Your task to perform on an android device: Search for a new blush on Sephora Image 0: 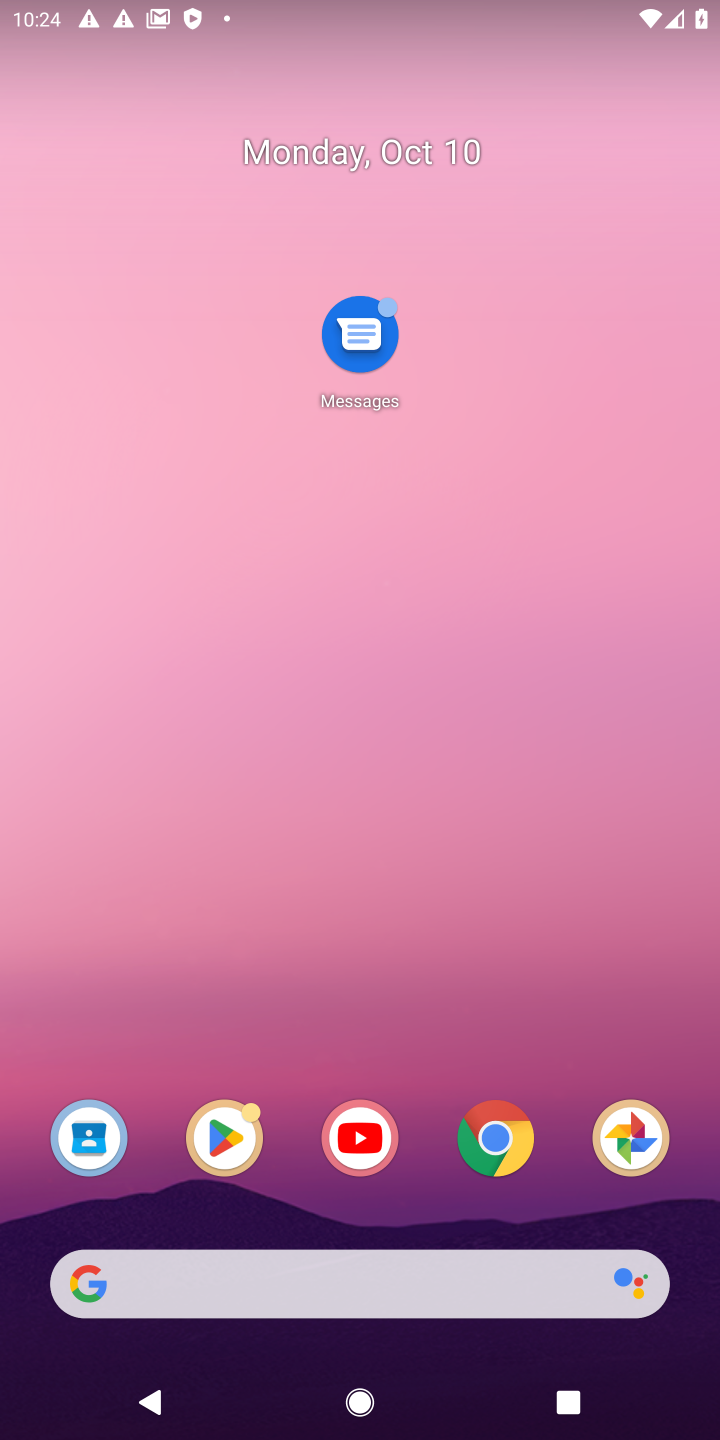
Step 0: click (507, 1161)
Your task to perform on an android device: Search for a new blush on Sephora Image 1: 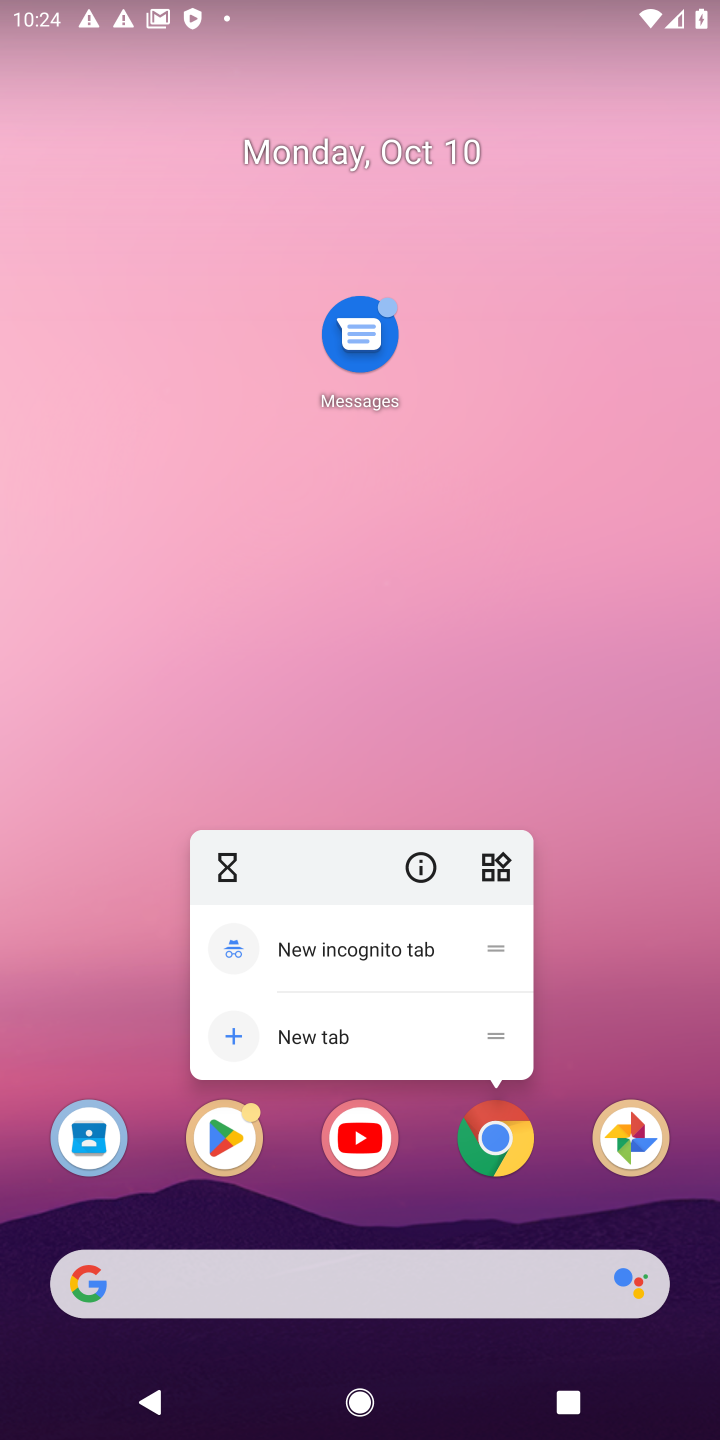
Step 1: click (503, 1136)
Your task to perform on an android device: Search for a new blush on Sephora Image 2: 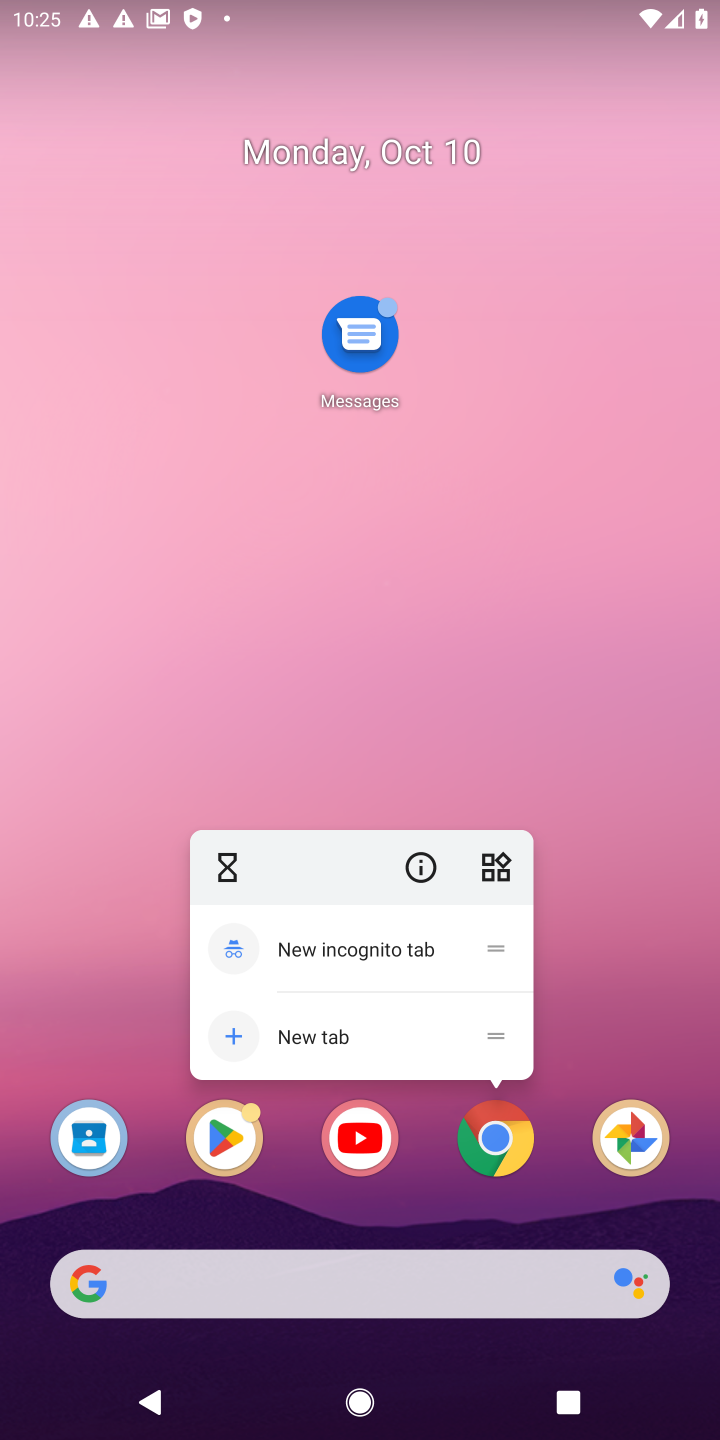
Step 2: click (501, 1153)
Your task to perform on an android device: Search for a new blush on Sephora Image 3: 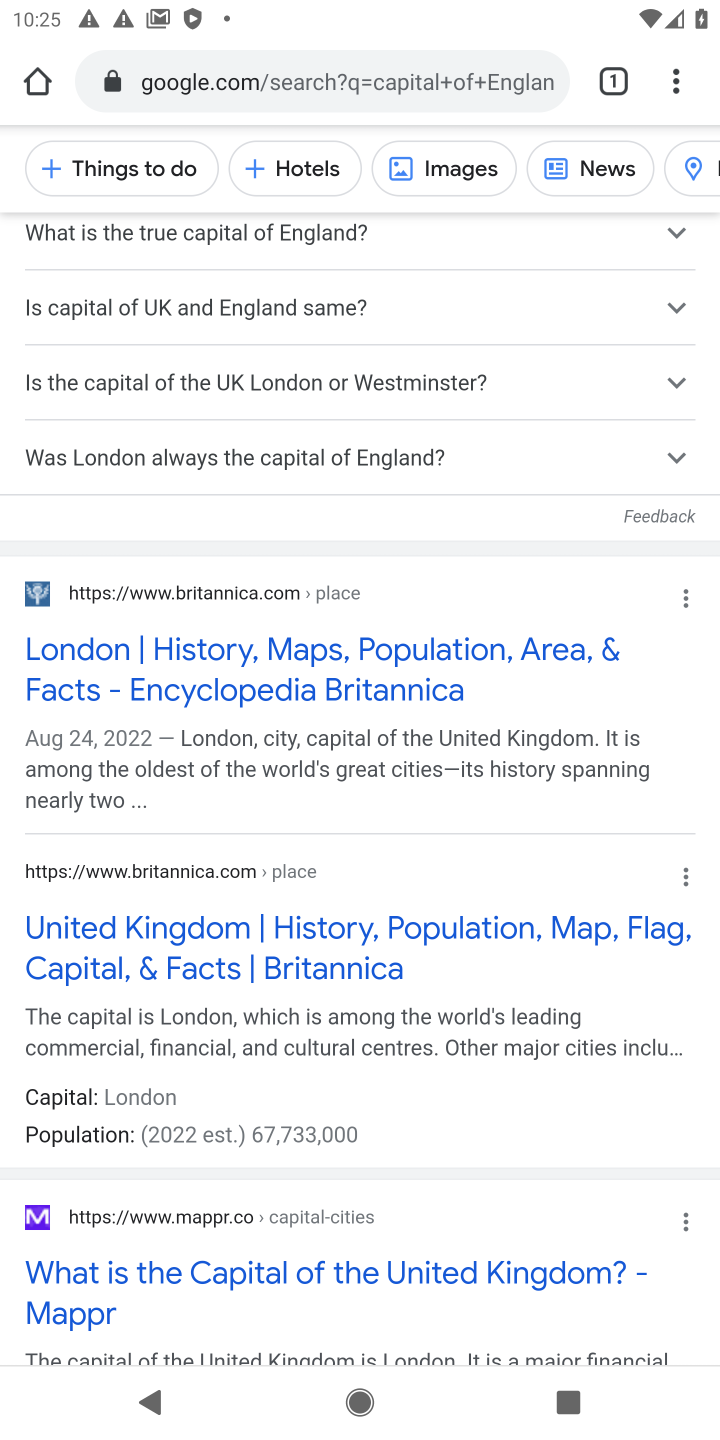
Step 3: click (398, 95)
Your task to perform on an android device: Search for a new blush on Sephora Image 4: 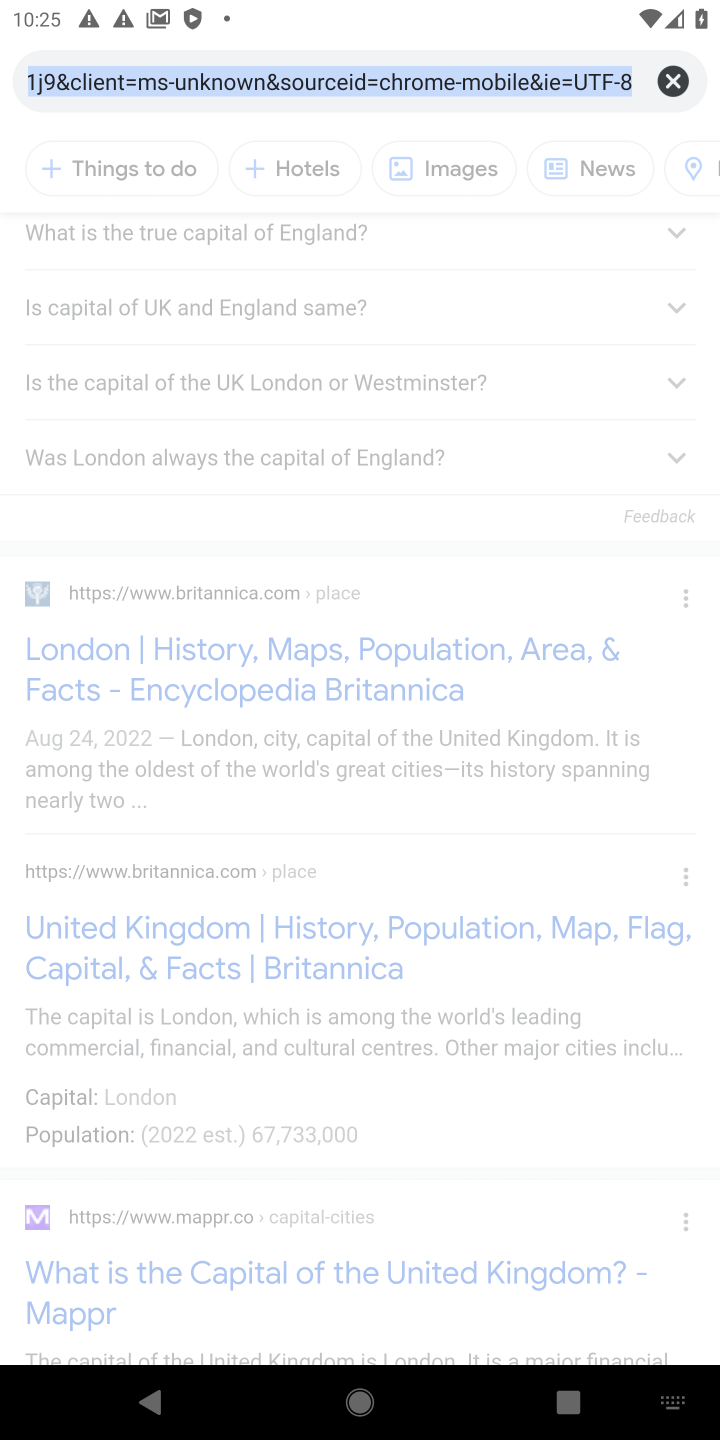
Step 4: type "sephora"
Your task to perform on an android device: Search for a new blush on Sephora Image 5: 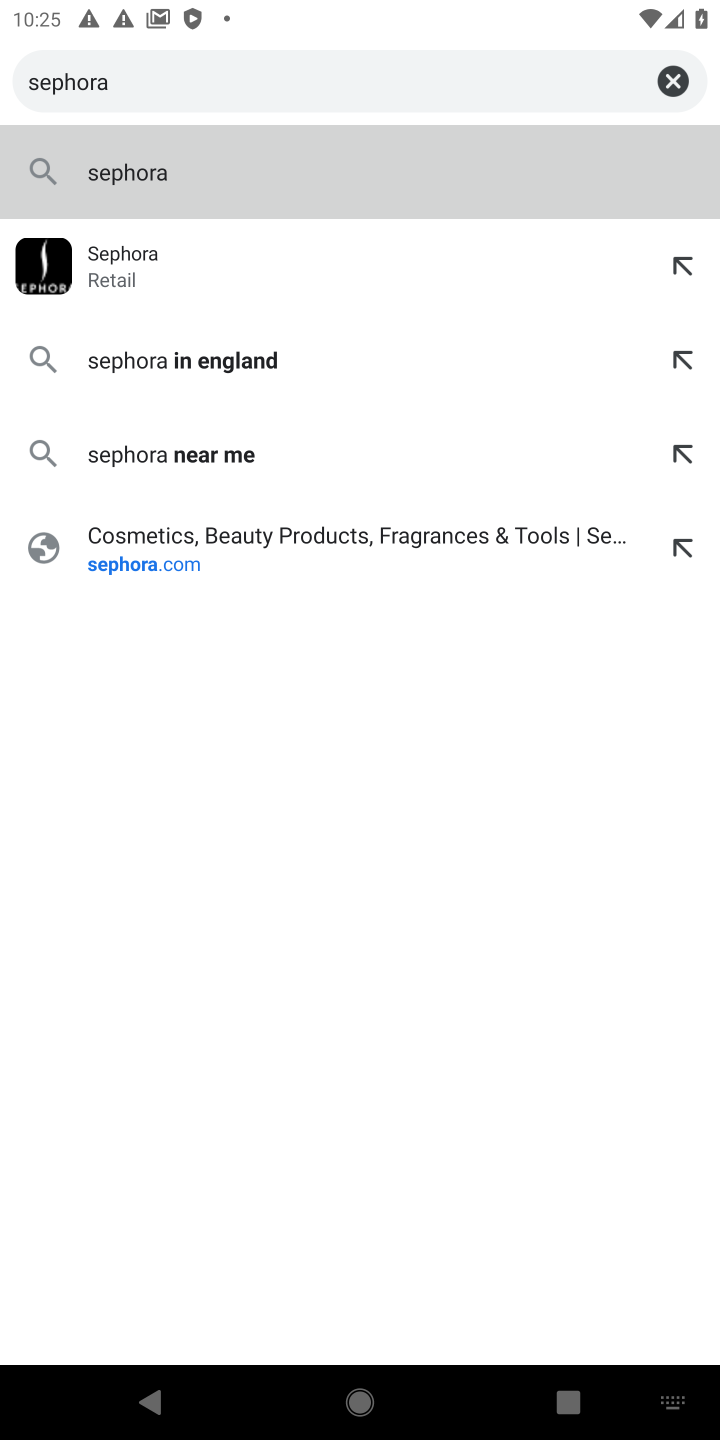
Step 5: press enter
Your task to perform on an android device: Search for a new blush on Sephora Image 6: 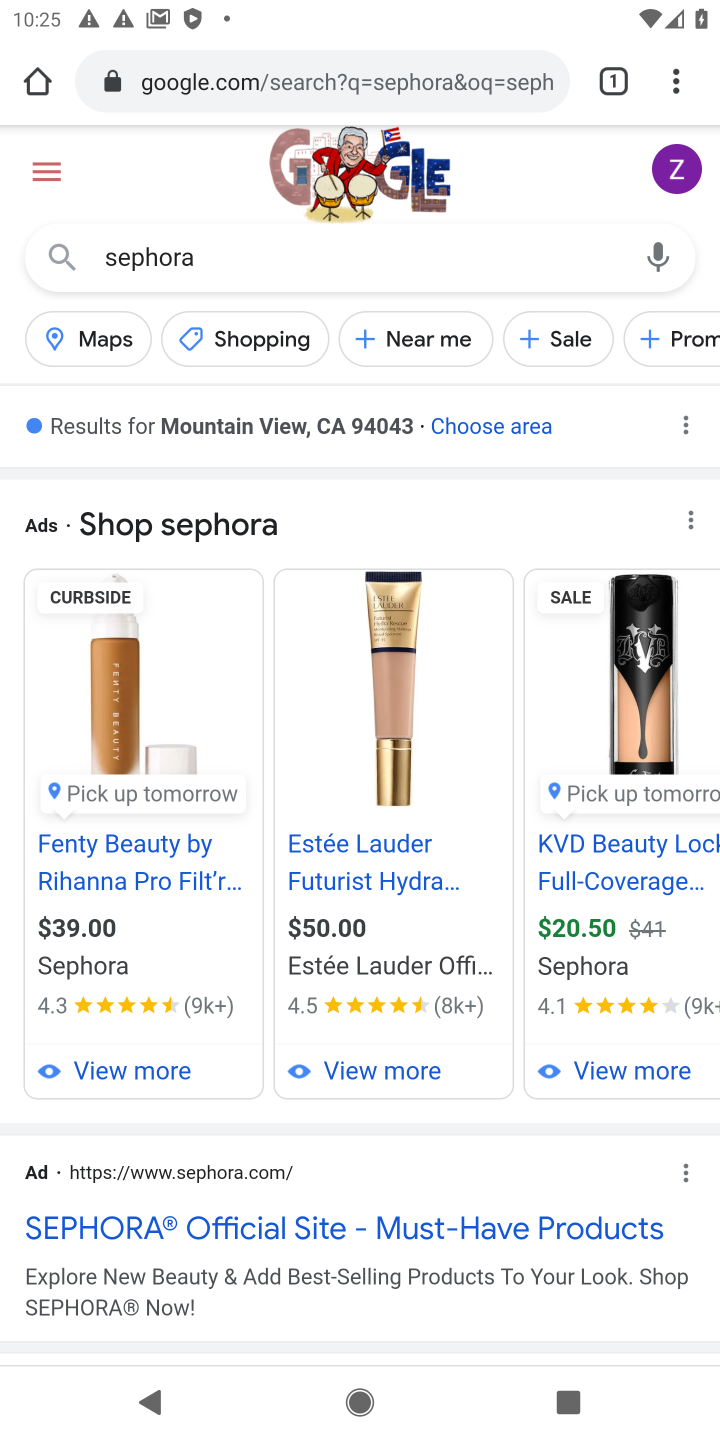
Step 6: drag from (388, 1001) to (425, 914)
Your task to perform on an android device: Search for a new blush on Sephora Image 7: 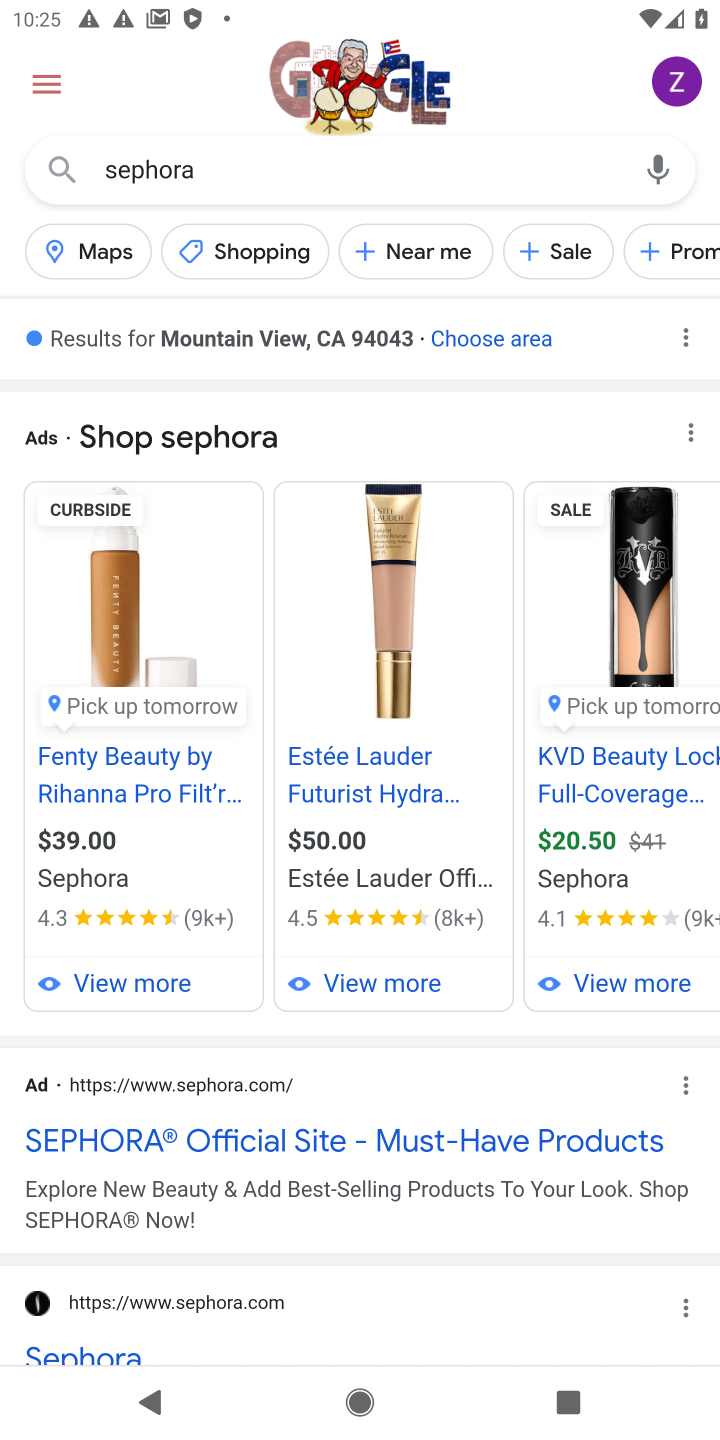
Step 7: click (455, 1140)
Your task to perform on an android device: Search for a new blush on Sephora Image 8: 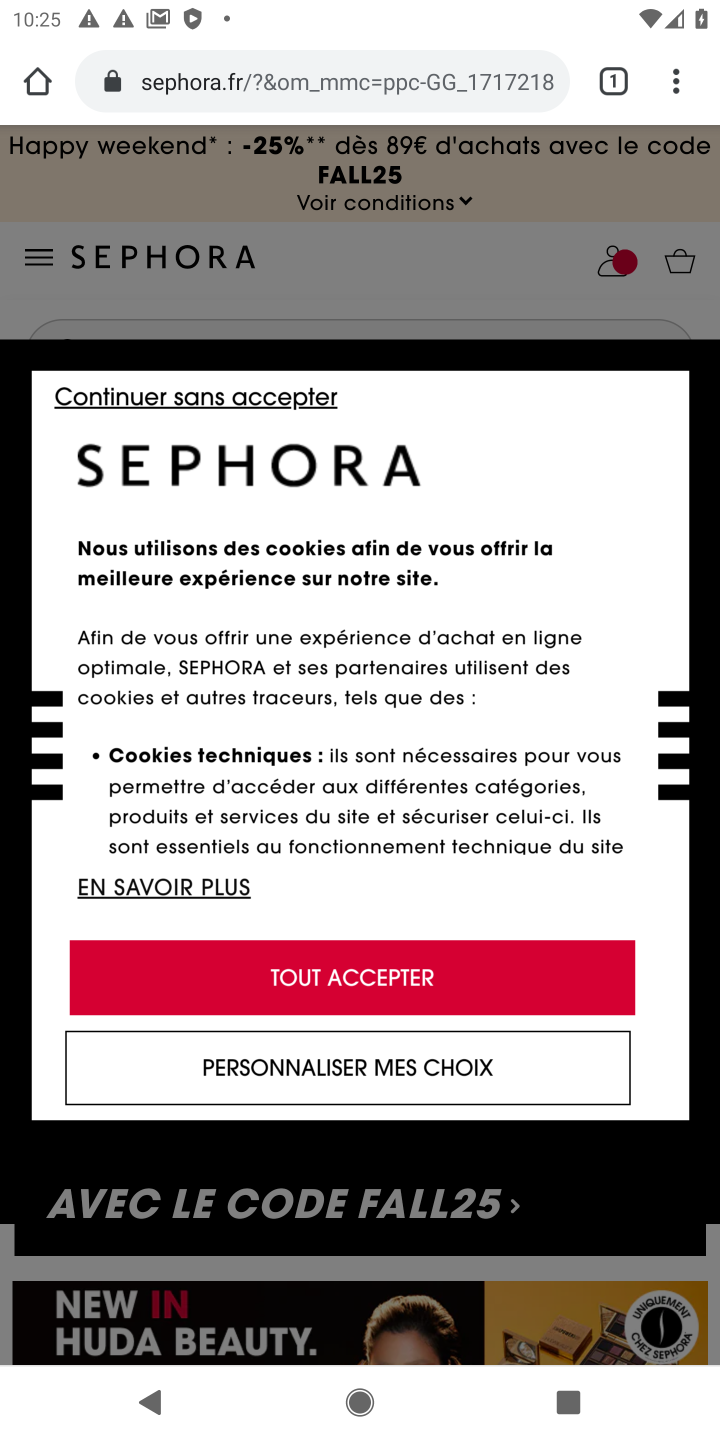
Step 8: click (380, 990)
Your task to perform on an android device: Search for a new blush on Sephora Image 9: 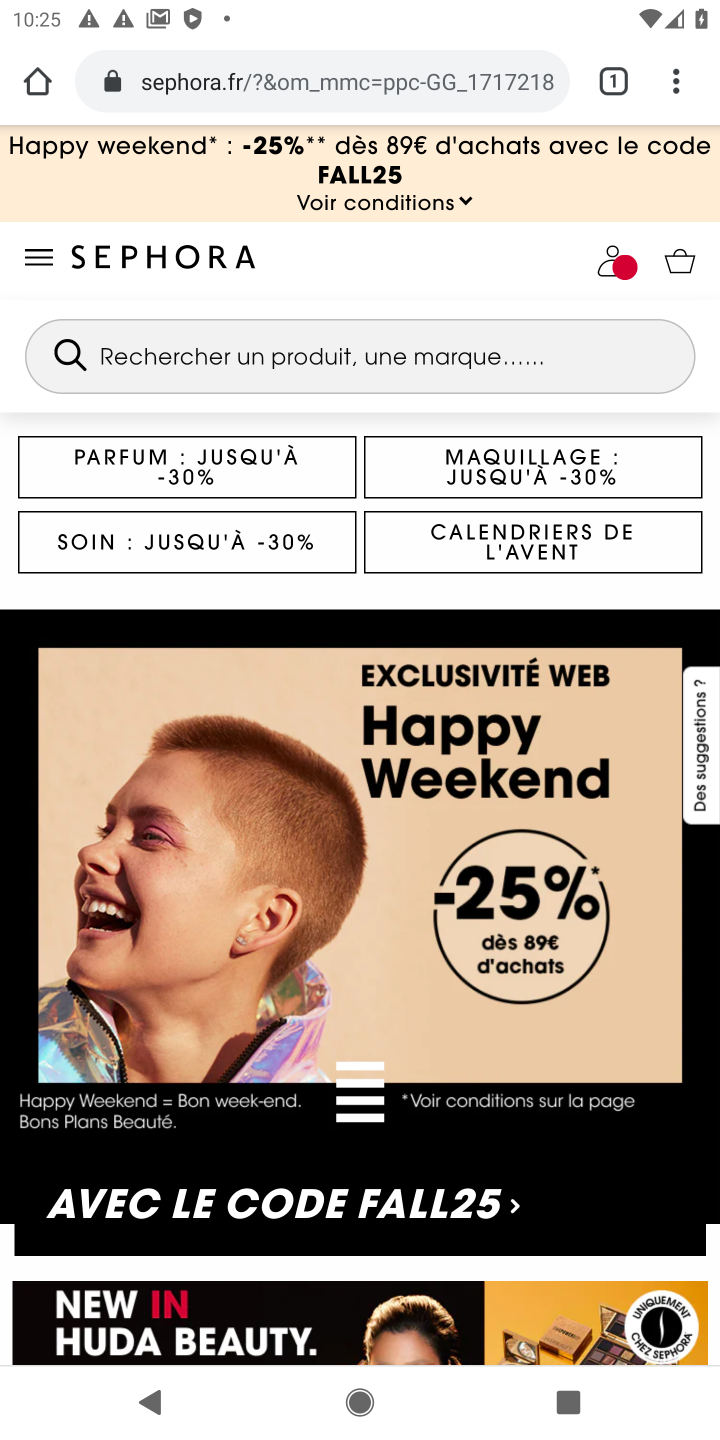
Step 9: drag from (388, 1140) to (376, 894)
Your task to perform on an android device: Search for a new blush on Sephora Image 10: 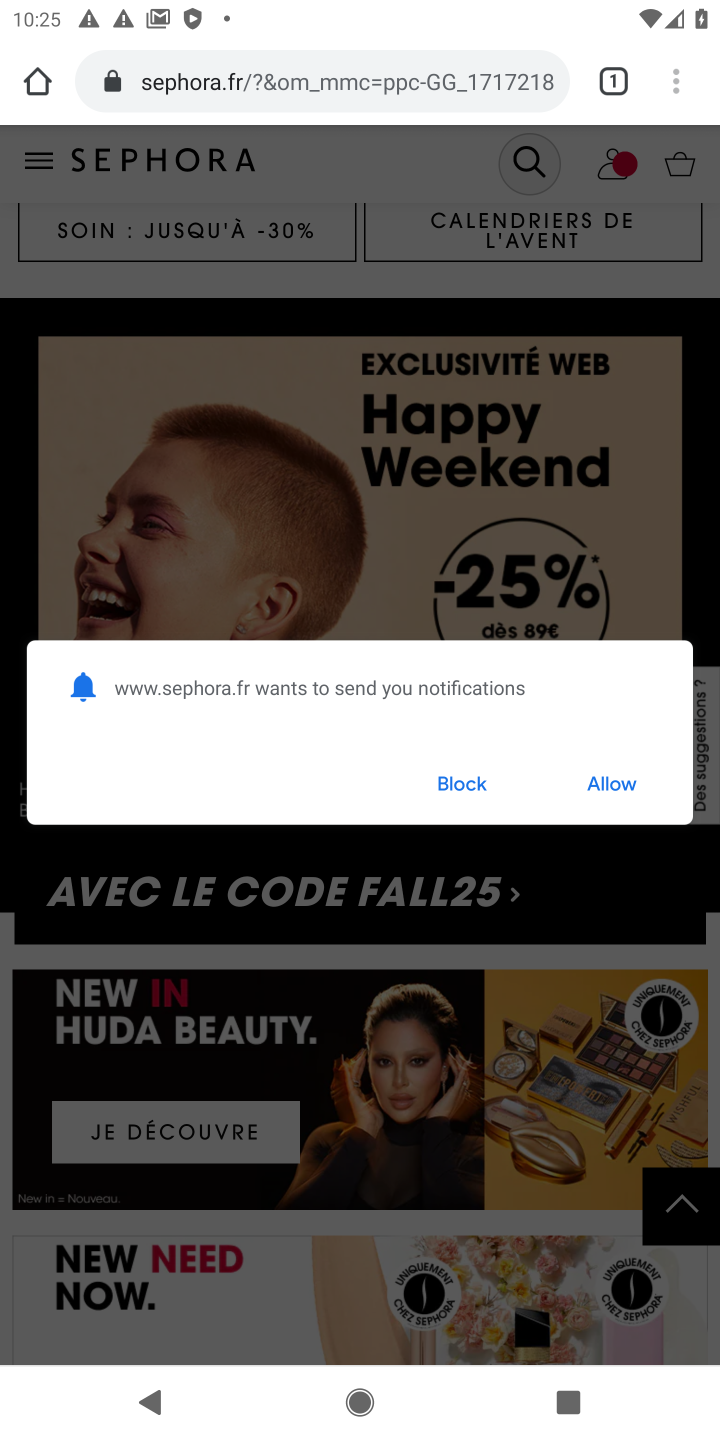
Step 10: click (361, 162)
Your task to perform on an android device: Search for a new blush on Sephora Image 11: 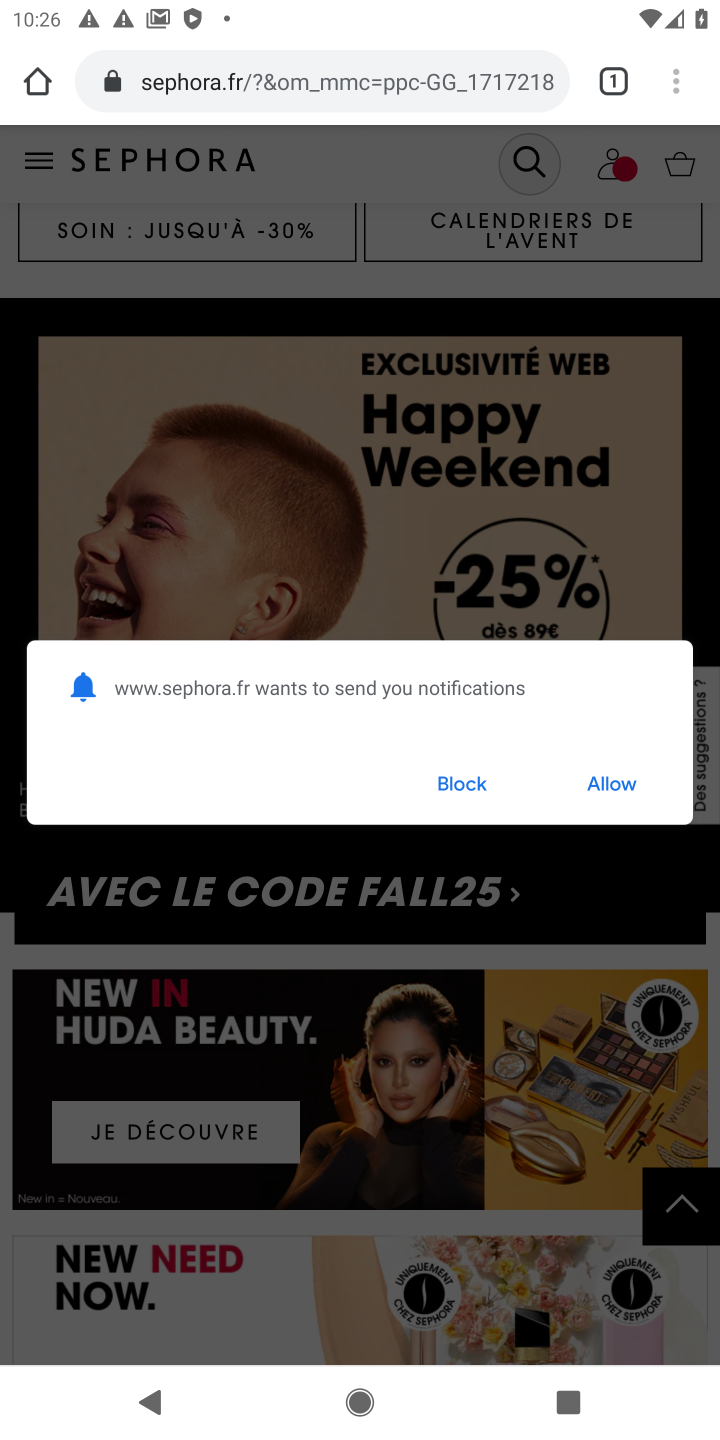
Step 11: click (595, 779)
Your task to perform on an android device: Search for a new blush on Sephora Image 12: 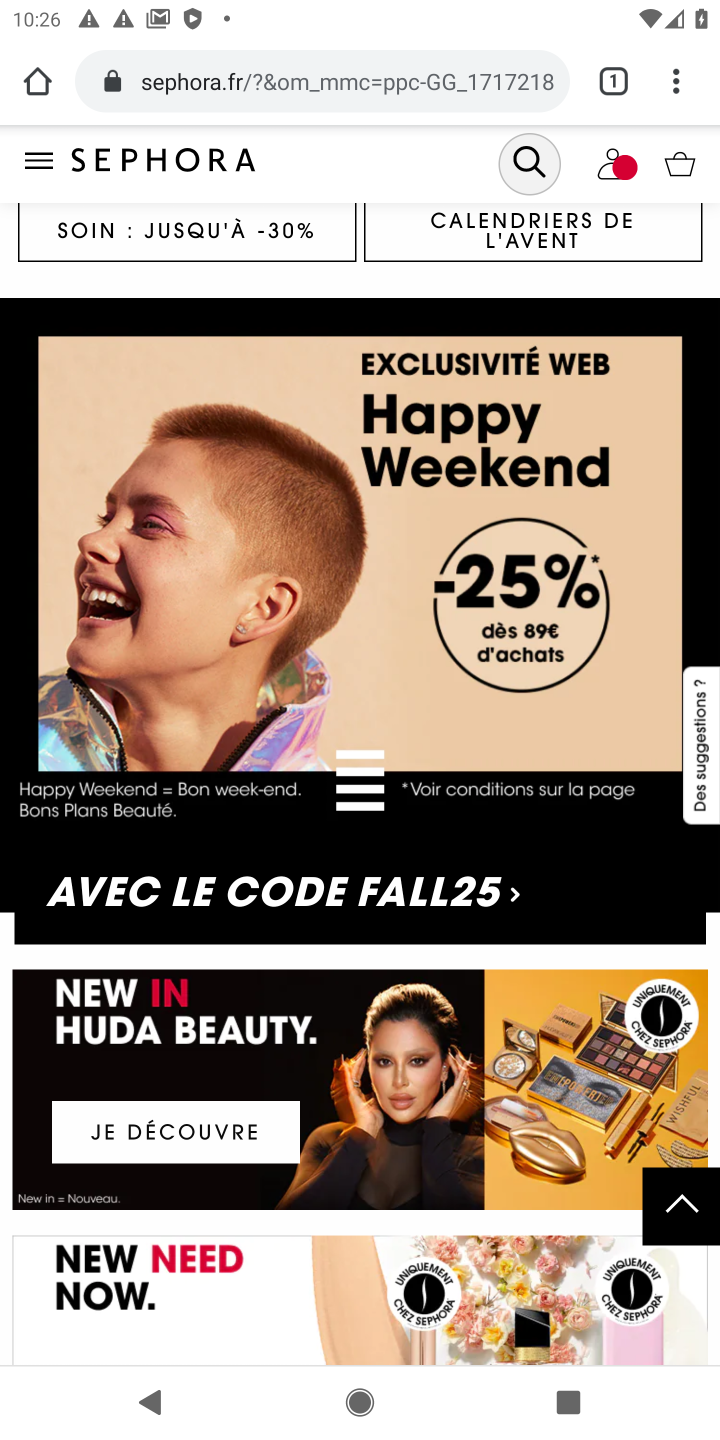
Step 12: drag from (437, 648) to (452, 943)
Your task to perform on an android device: Search for a new blush on Sephora Image 13: 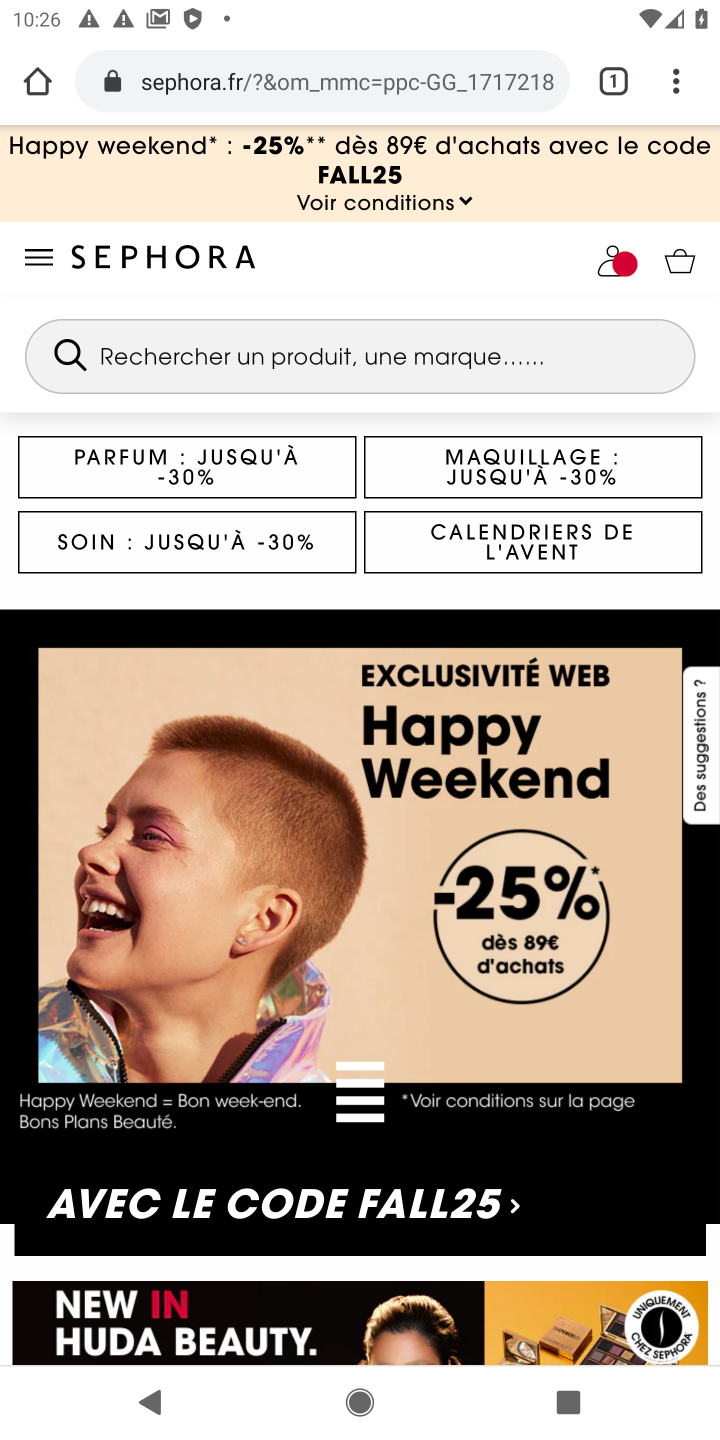
Step 13: click (376, 271)
Your task to perform on an android device: Search for a new blush on Sephora Image 14: 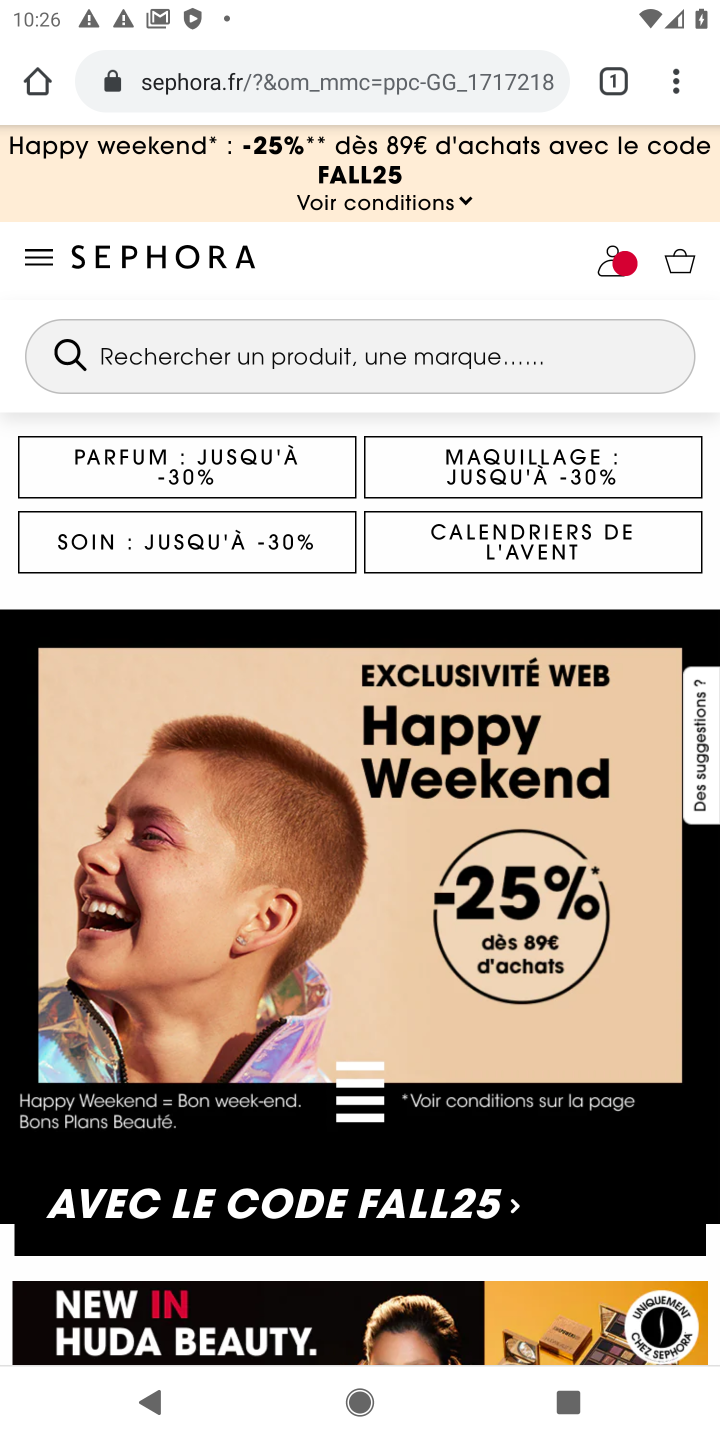
Step 14: click (358, 349)
Your task to perform on an android device: Search for a new blush on Sephora Image 15: 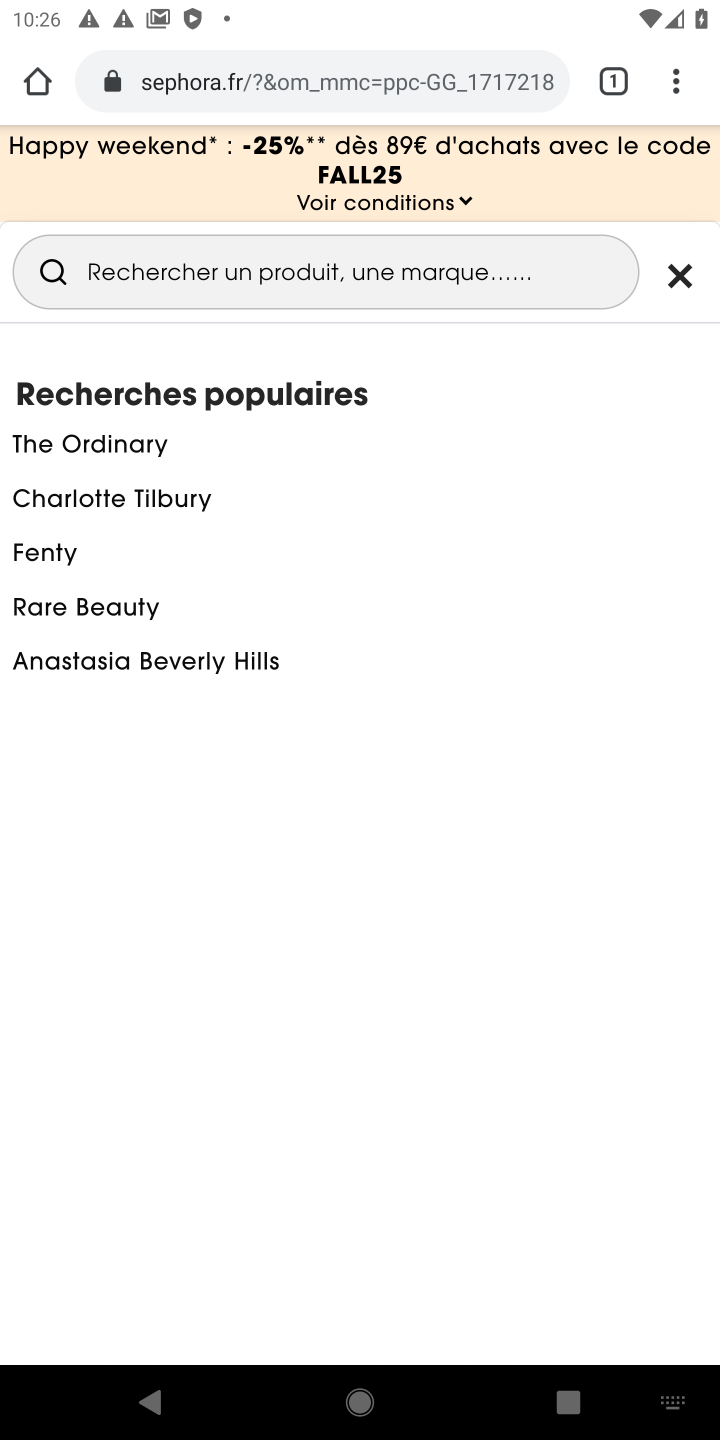
Step 15: type "new blush"
Your task to perform on an android device: Search for a new blush on Sephora Image 16: 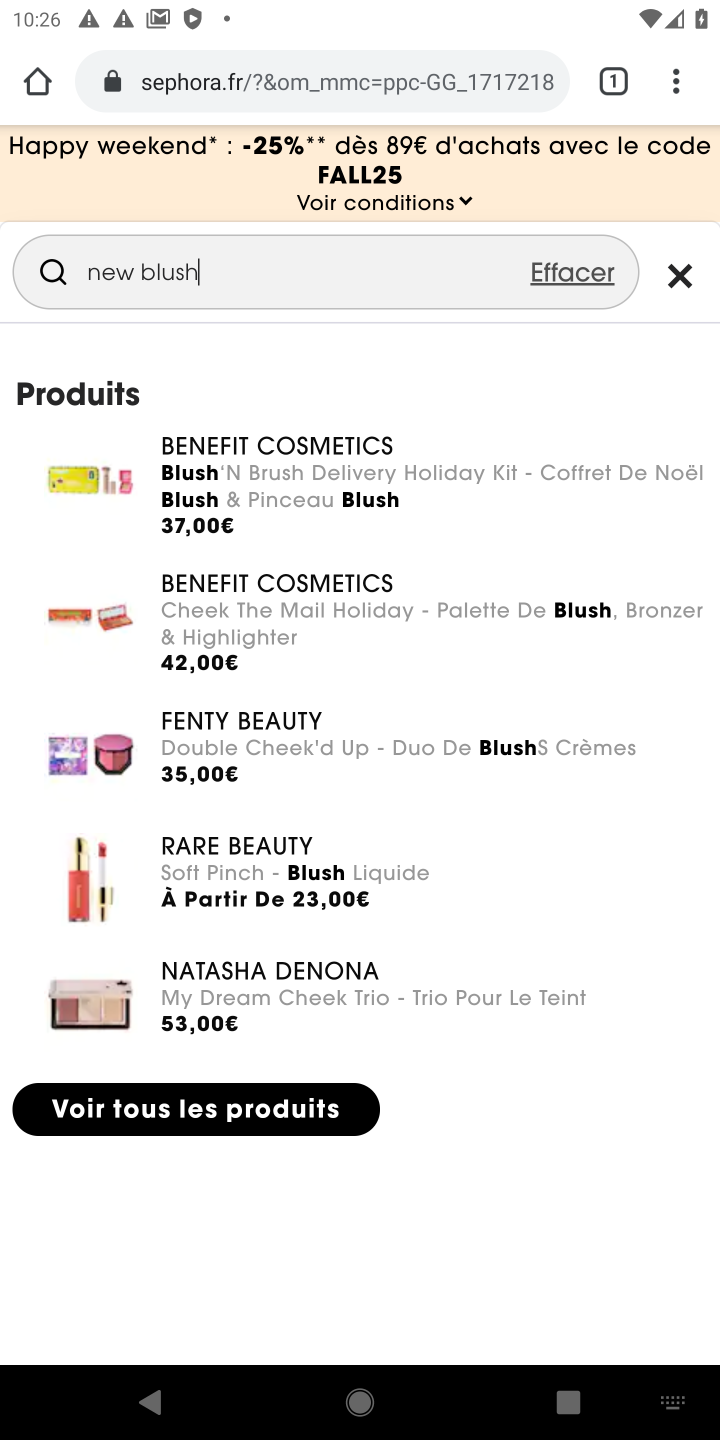
Step 16: press enter
Your task to perform on an android device: Search for a new blush on Sephora Image 17: 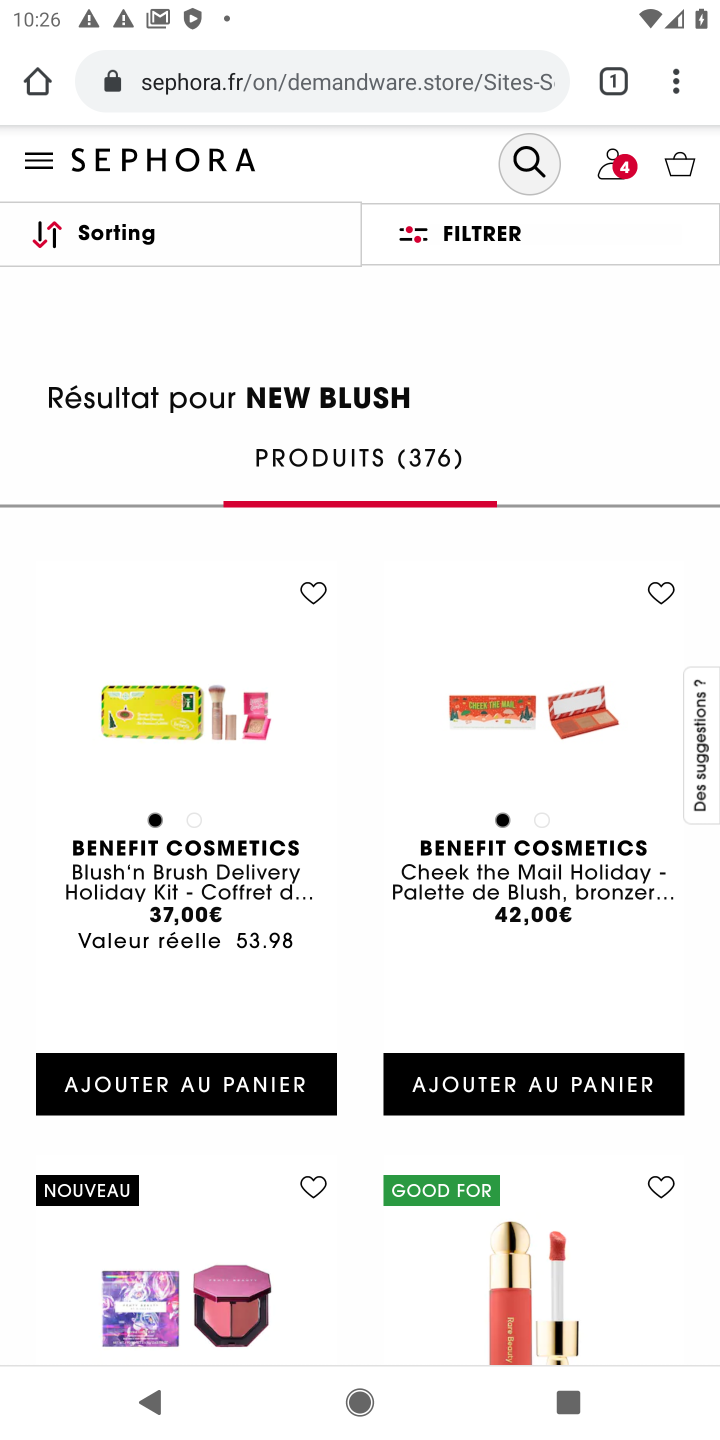
Step 17: click (242, 1051)
Your task to perform on an android device: Search for a new blush on Sephora Image 18: 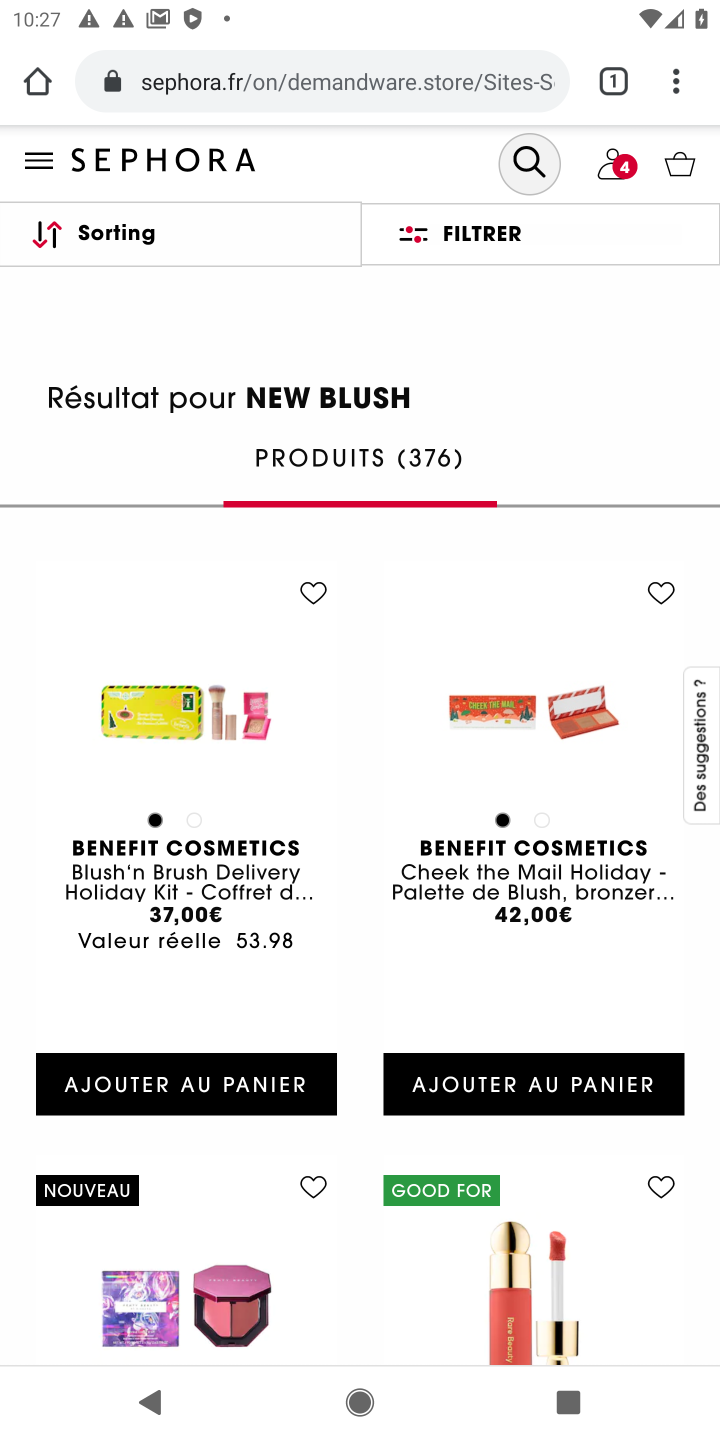
Step 18: task complete